Your task to perform on an android device: turn off smart reply in the gmail app Image 0: 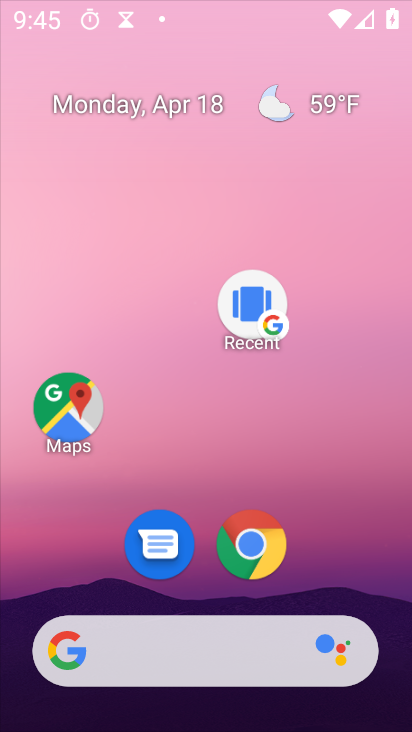
Step 0: click (287, 142)
Your task to perform on an android device: turn off smart reply in the gmail app Image 1: 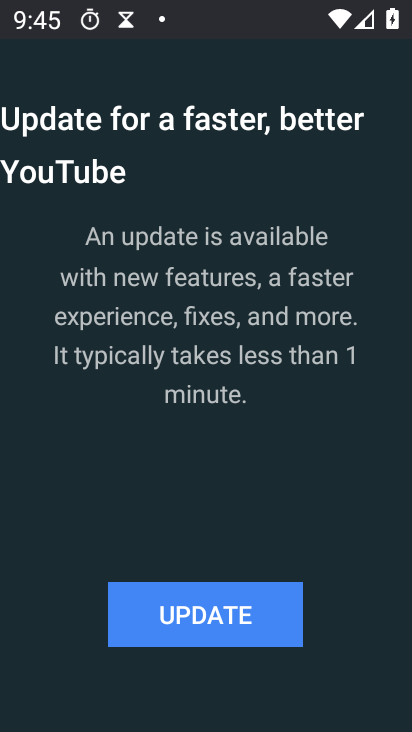
Step 1: click (275, 625)
Your task to perform on an android device: turn off smart reply in the gmail app Image 2: 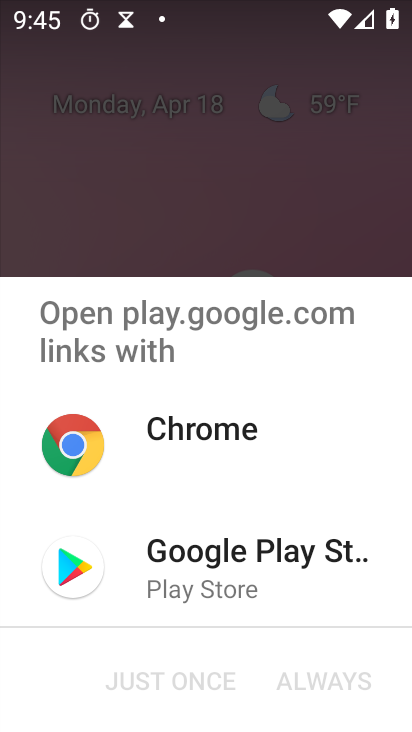
Step 2: press home button
Your task to perform on an android device: turn off smart reply in the gmail app Image 3: 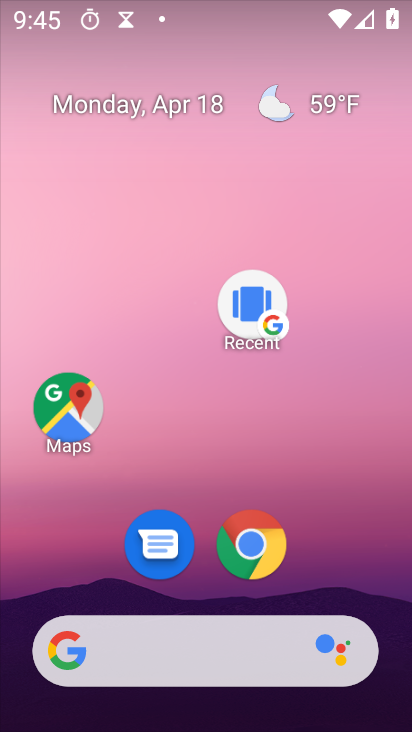
Step 3: drag from (350, 592) to (283, 163)
Your task to perform on an android device: turn off smart reply in the gmail app Image 4: 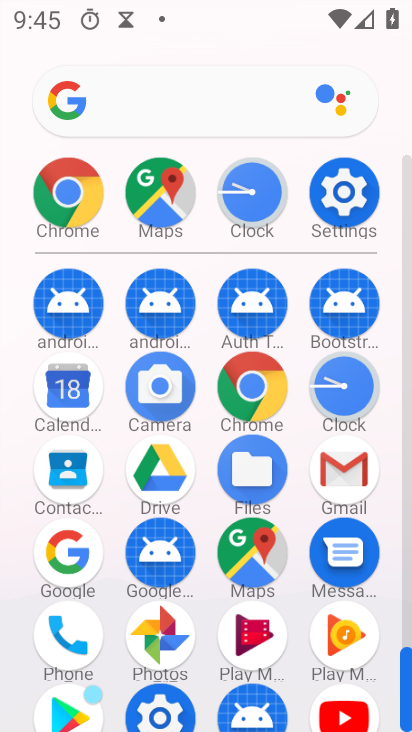
Step 4: click (324, 491)
Your task to perform on an android device: turn off smart reply in the gmail app Image 5: 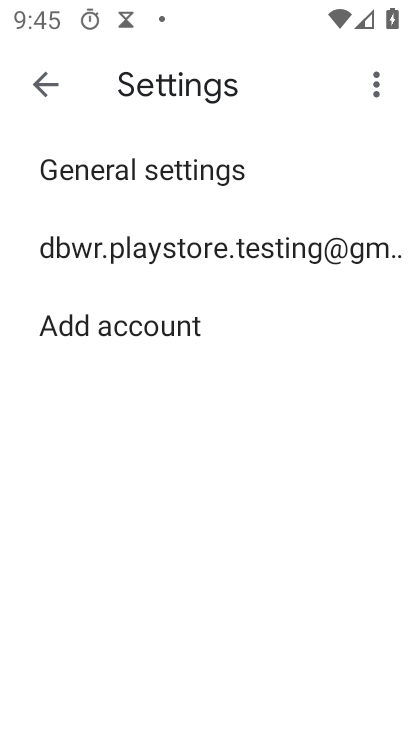
Step 5: click (306, 252)
Your task to perform on an android device: turn off smart reply in the gmail app Image 6: 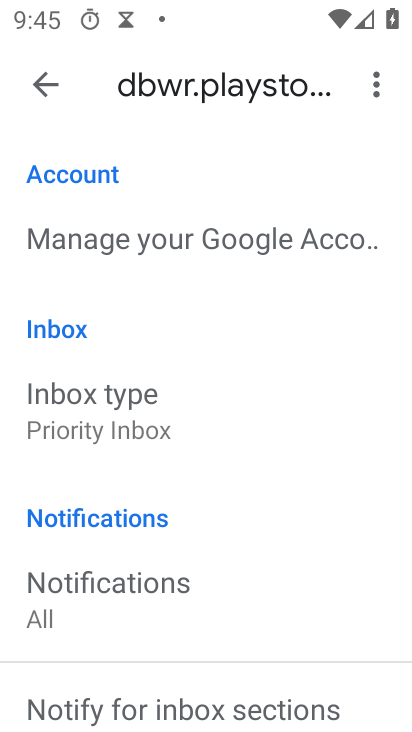
Step 6: task complete